Your task to perform on an android device: Open Android settings Image 0: 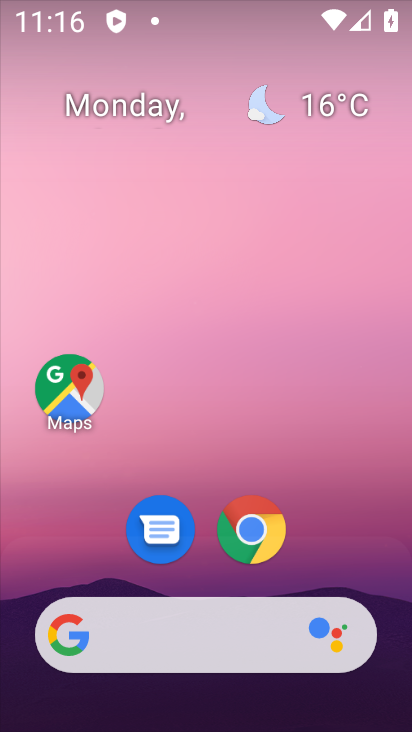
Step 0: click (263, 316)
Your task to perform on an android device: Open Android settings Image 1: 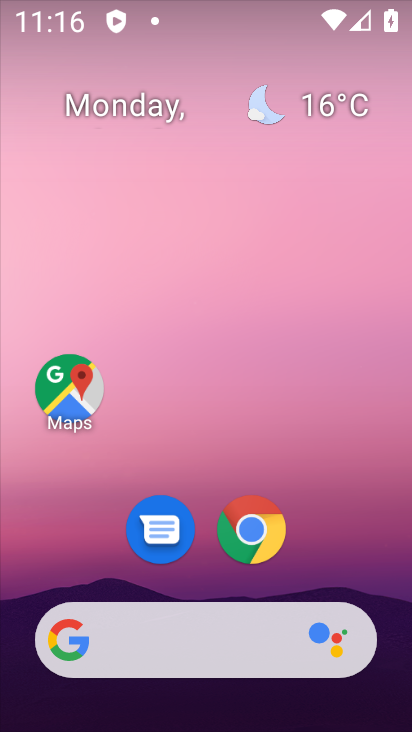
Step 1: drag from (182, 576) to (221, 135)
Your task to perform on an android device: Open Android settings Image 2: 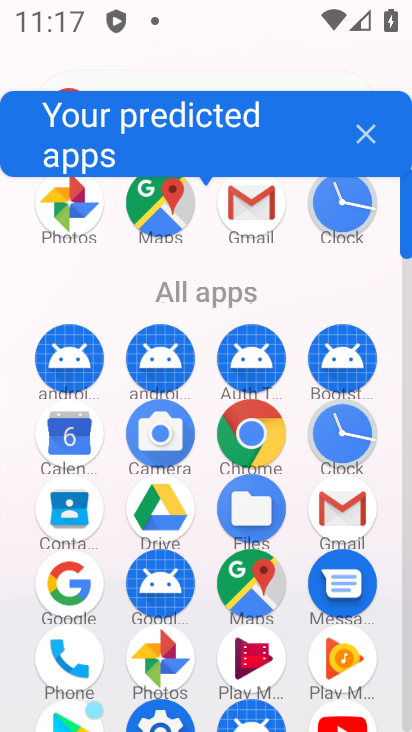
Step 2: click (163, 721)
Your task to perform on an android device: Open Android settings Image 3: 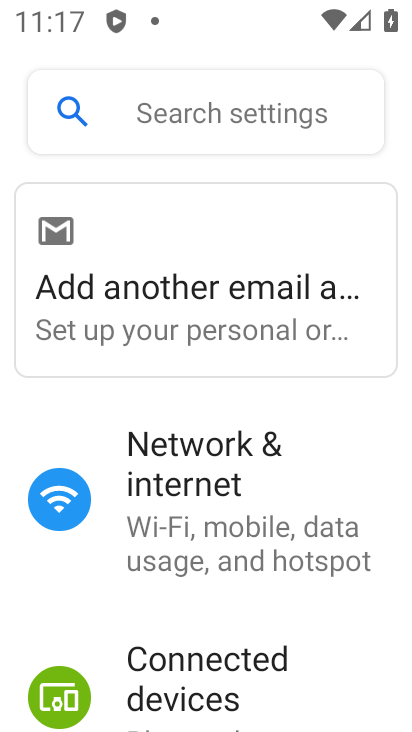
Step 3: task complete